Your task to perform on an android device: Play the last video I watched on Youtube Image 0: 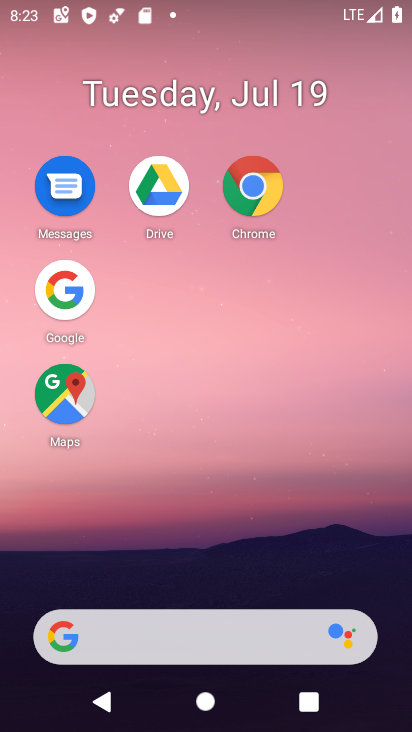
Step 0: drag from (208, 602) to (256, 21)
Your task to perform on an android device: Play the last video I watched on Youtube Image 1: 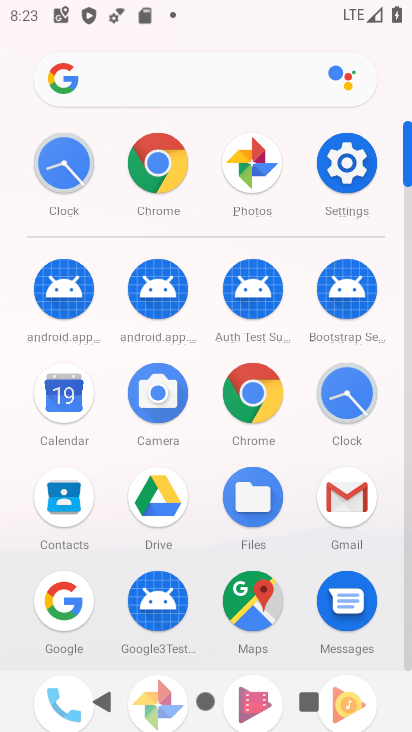
Step 1: drag from (201, 577) to (139, 76)
Your task to perform on an android device: Play the last video I watched on Youtube Image 2: 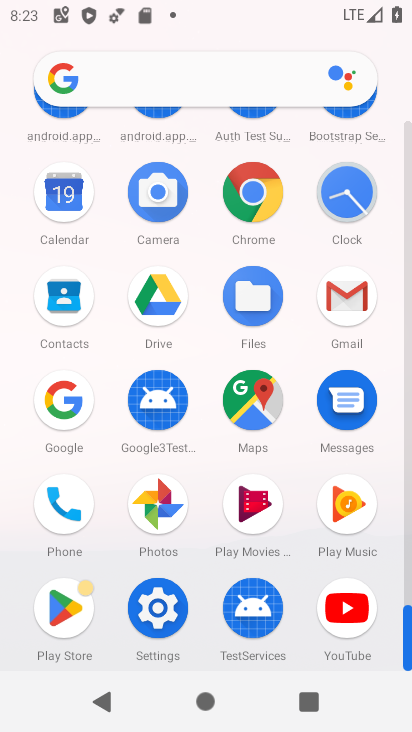
Step 2: click (358, 626)
Your task to perform on an android device: Play the last video I watched on Youtube Image 3: 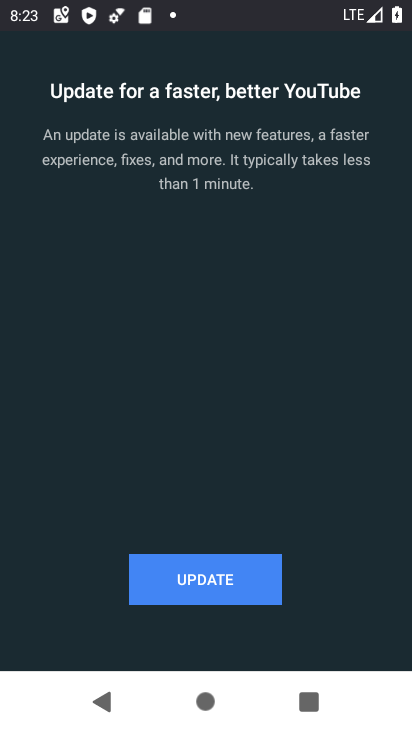
Step 3: click (255, 590)
Your task to perform on an android device: Play the last video I watched on Youtube Image 4: 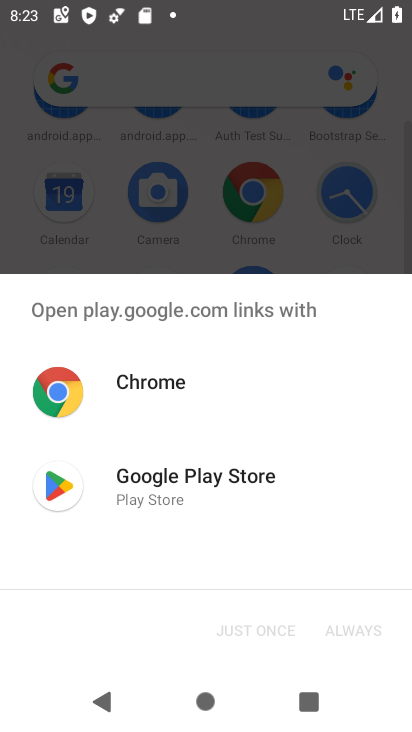
Step 4: click (251, 477)
Your task to perform on an android device: Play the last video I watched on Youtube Image 5: 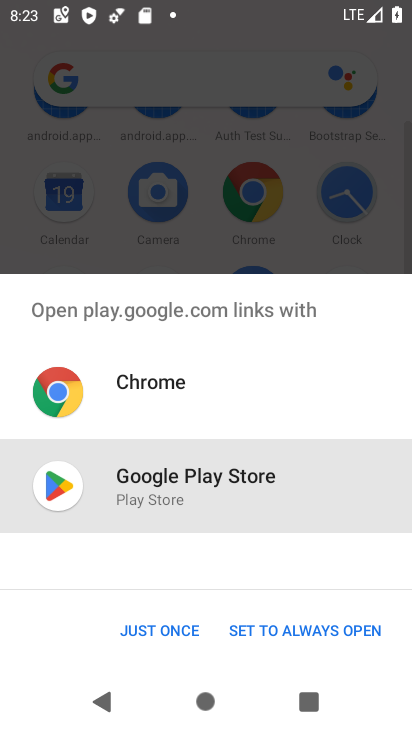
Step 5: click (161, 634)
Your task to perform on an android device: Play the last video I watched on Youtube Image 6: 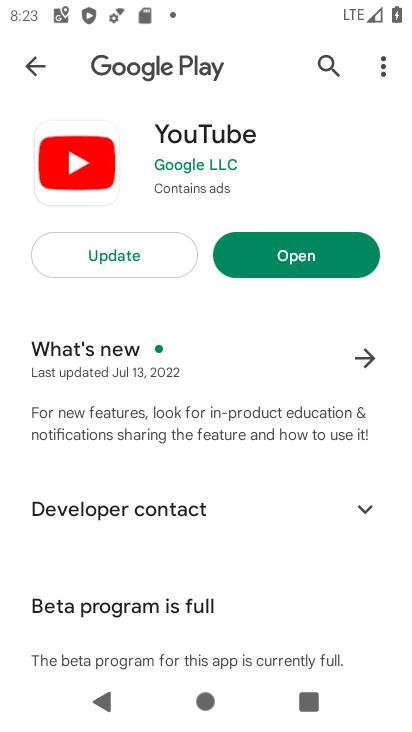
Step 6: click (128, 243)
Your task to perform on an android device: Play the last video I watched on Youtube Image 7: 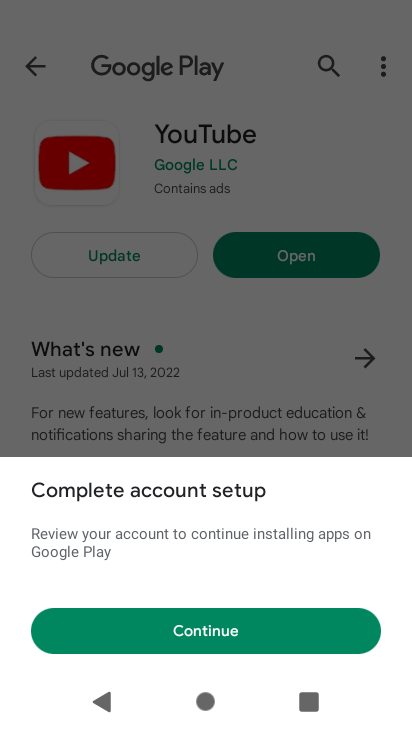
Step 7: click (185, 623)
Your task to perform on an android device: Play the last video I watched on Youtube Image 8: 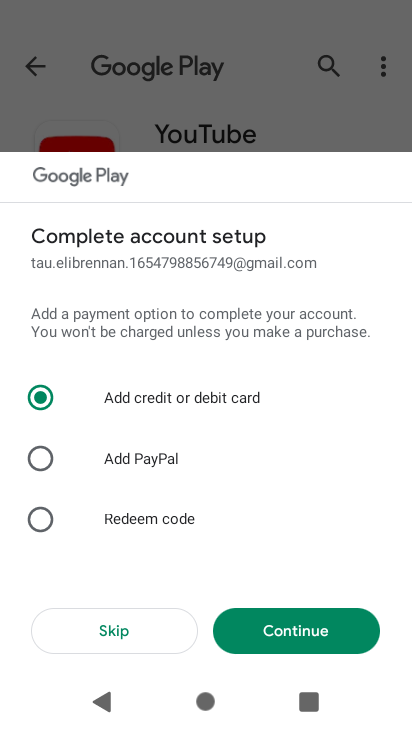
Step 8: click (128, 623)
Your task to perform on an android device: Play the last video I watched on Youtube Image 9: 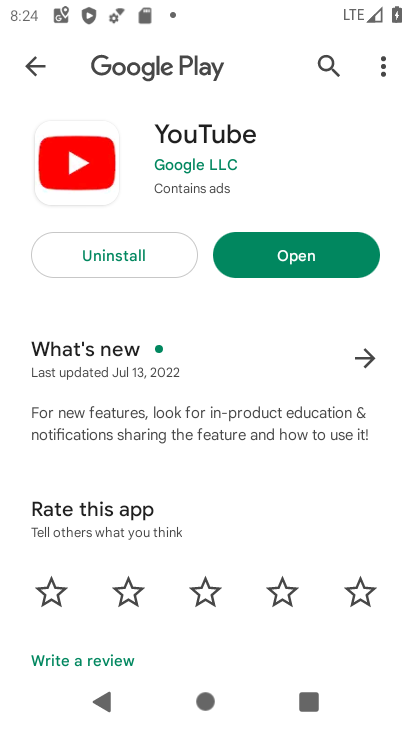
Step 9: click (296, 263)
Your task to perform on an android device: Play the last video I watched on Youtube Image 10: 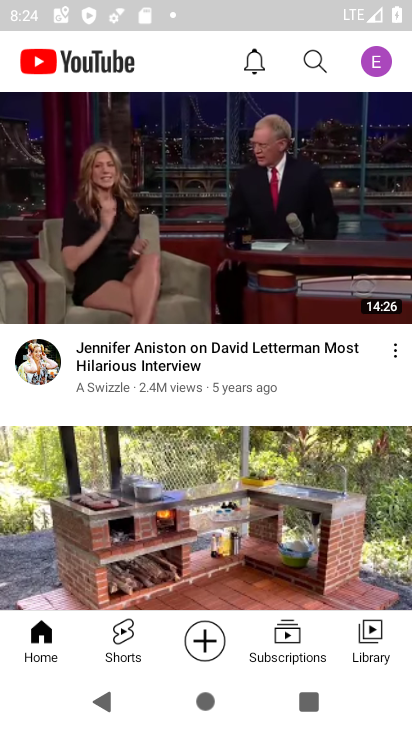
Step 10: click (370, 627)
Your task to perform on an android device: Play the last video I watched on Youtube Image 11: 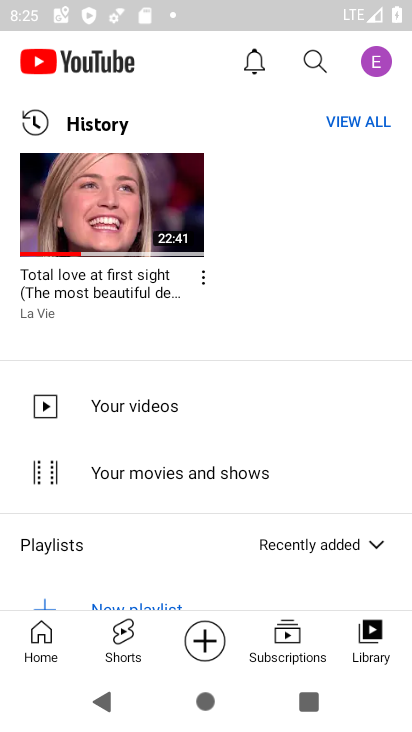
Step 11: click (59, 201)
Your task to perform on an android device: Play the last video I watched on Youtube Image 12: 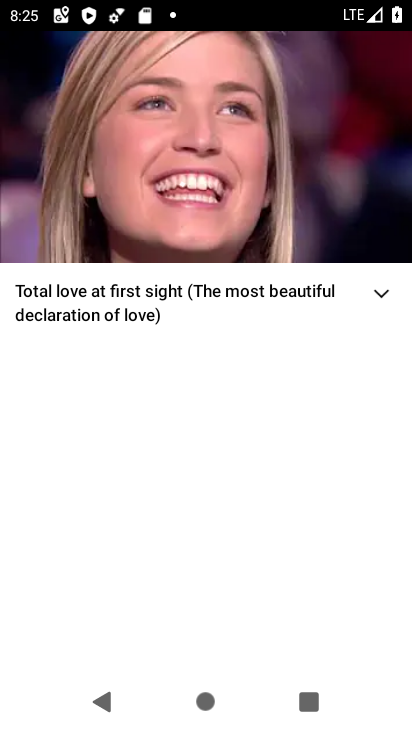
Step 12: click (216, 126)
Your task to perform on an android device: Play the last video I watched on Youtube Image 13: 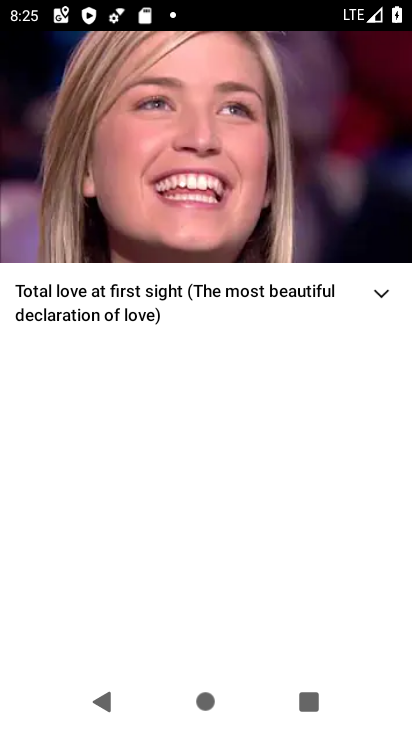
Step 13: click (216, 126)
Your task to perform on an android device: Play the last video I watched on Youtube Image 14: 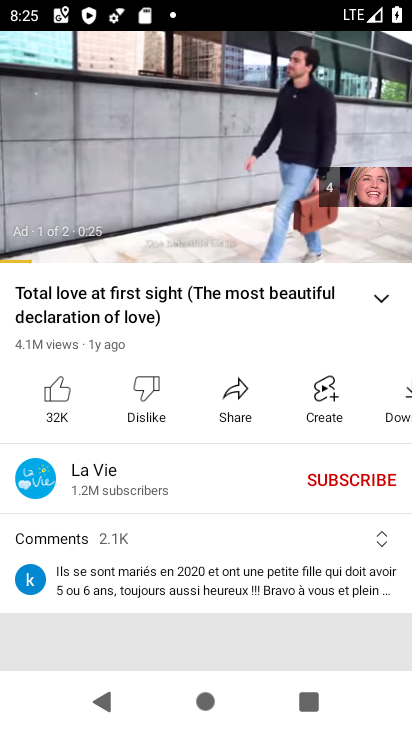
Step 14: click (216, 126)
Your task to perform on an android device: Play the last video I watched on Youtube Image 15: 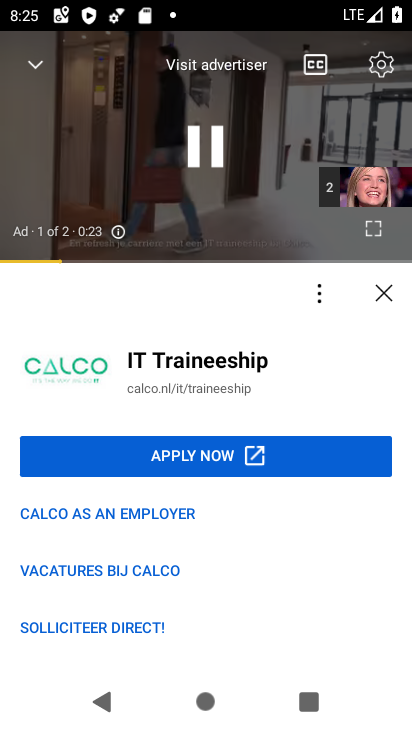
Step 15: click (216, 126)
Your task to perform on an android device: Play the last video I watched on Youtube Image 16: 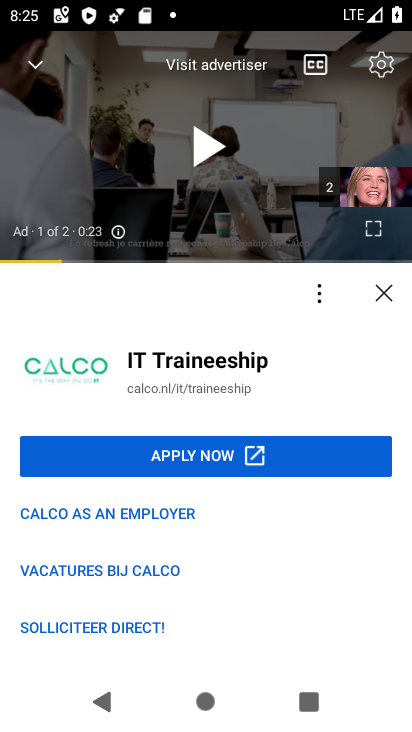
Step 16: task complete